Your task to perform on an android device: Open Google Chrome and open the bookmarks view Image 0: 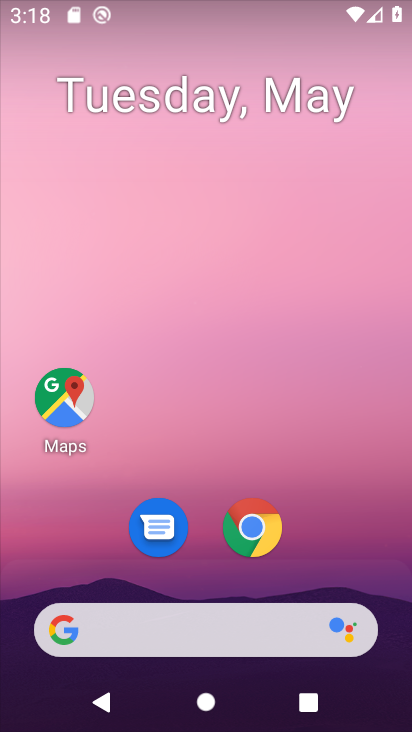
Step 0: click (249, 542)
Your task to perform on an android device: Open Google Chrome and open the bookmarks view Image 1: 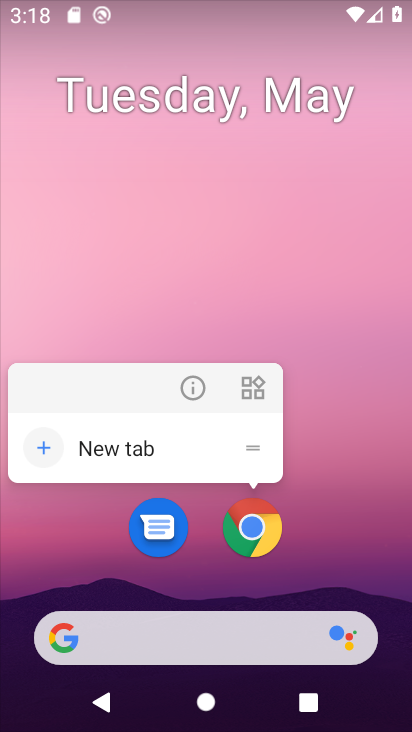
Step 1: click (255, 541)
Your task to perform on an android device: Open Google Chrome and open the bookmarks view Image 2: 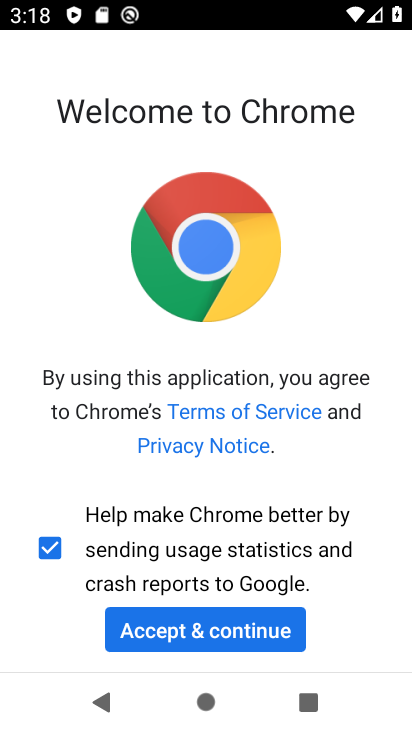
Step 2: click (230, 634)
Your task to perform on an android device: Open Google Chrome and open the bookmarks view Image 3: 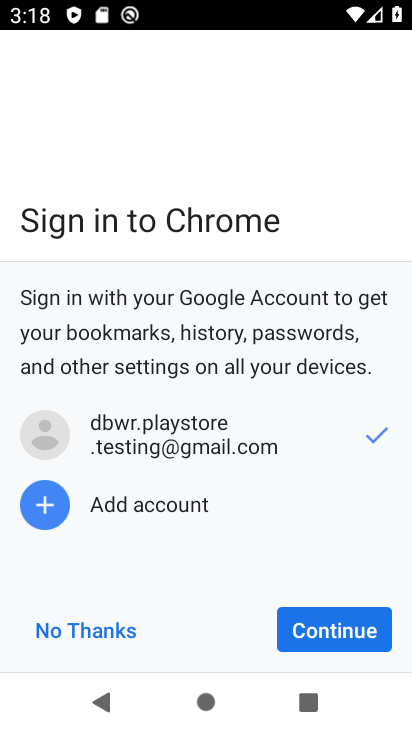
Step 3: click (293, 634)
Your task to perform on an android device: Open Google Chrome and open the bookmarks view Image 4: 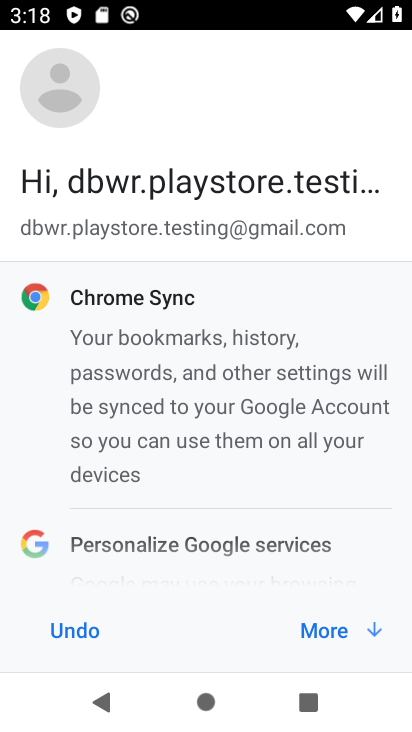
Step 4: click (320, 625)
Your task to perform on an android device: Open Google Chrome and open the bookmarks view Image 5: 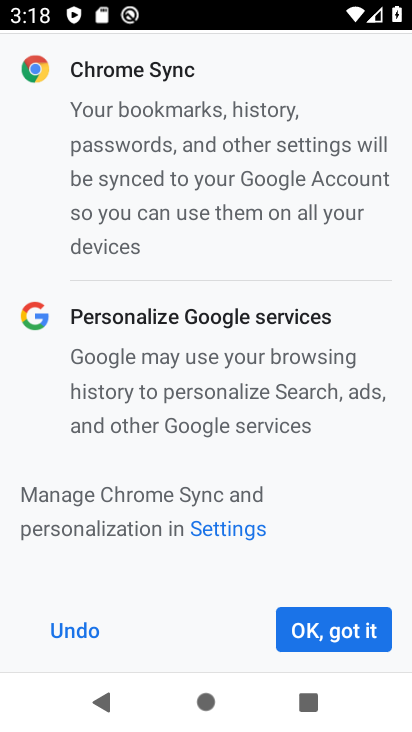
Step 5: click (347, 650)
Your task to perform on an android device: Open Google Chrome and open the bookmarks view Image 6: 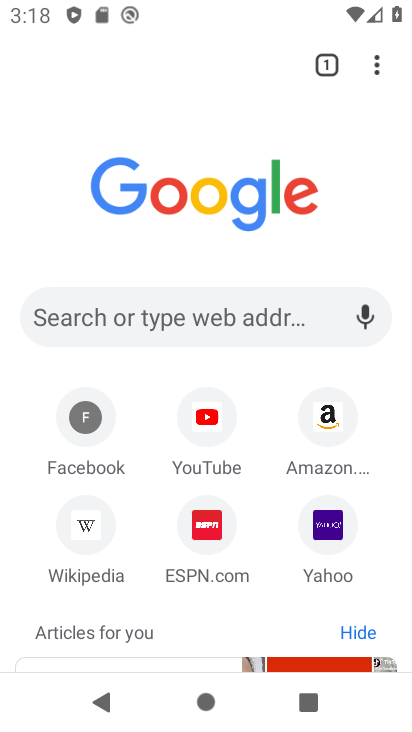
Step 6: task complete